Your task to perform on an android device: move an email to a new category in the gmail app Image 0: 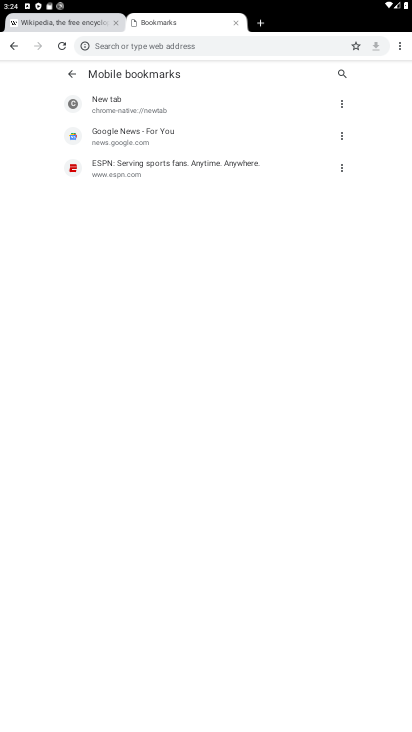
Step 0: press home button
Your task to perform on an android device: move an email to a new category in the gmail app Image 1: 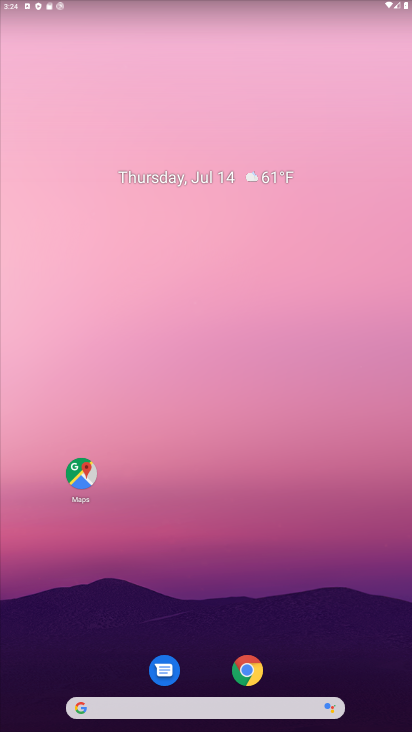
Step 1: drag from (210, 668) to (219, 328)
Your task to perform on an android device: move an email to a new category in the gmail app Image 2: 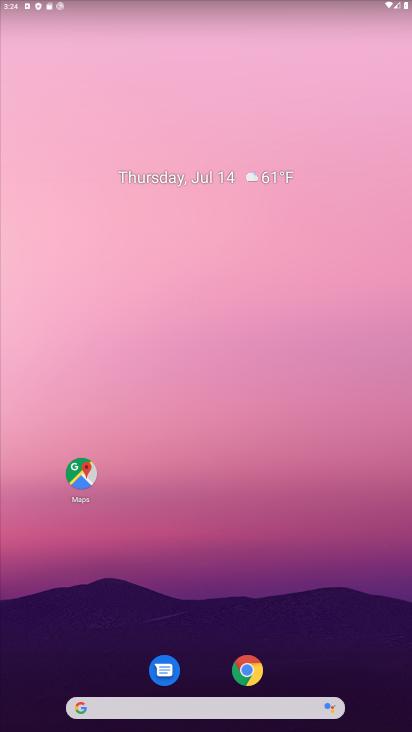
Step 2: drag from (213, 660) to (192, 272)
Your task to perform on an android device: move an email to a new category in the gmail app Image 3: 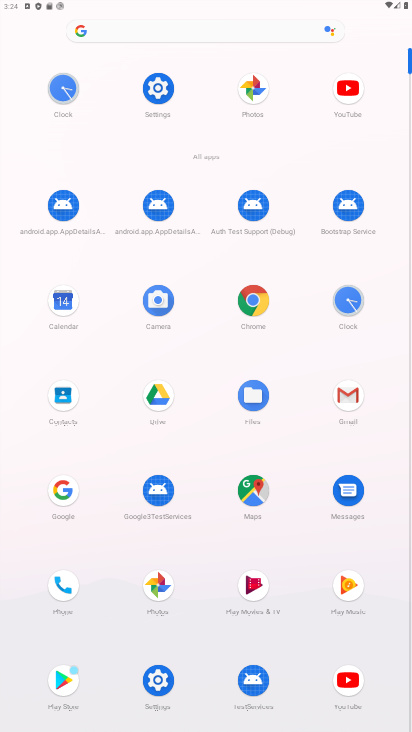
Step 3: click (356, 399)
Your task to perform on an android device: move an email to a new category in the gmail app Image 4: 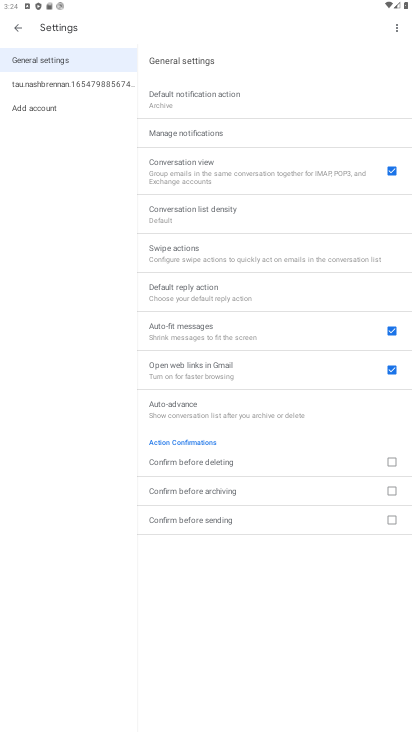
Step 4: click (16, 20)
Your task to perform on an android device: move an email to a new category in the gmail app Image 5: 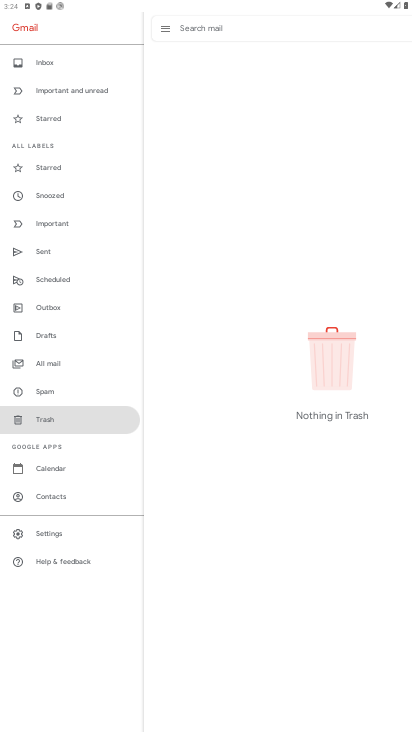
Step 5: click (99, 62)
Your task to perform on an android device: move an email to a new category in the gmail app Image 6: 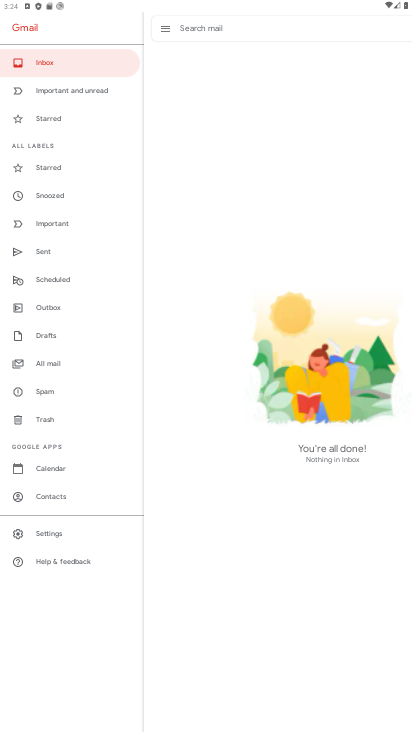
Step 6: task complete